Your task to perform on an android device: Turn on the flashlight Image 0: 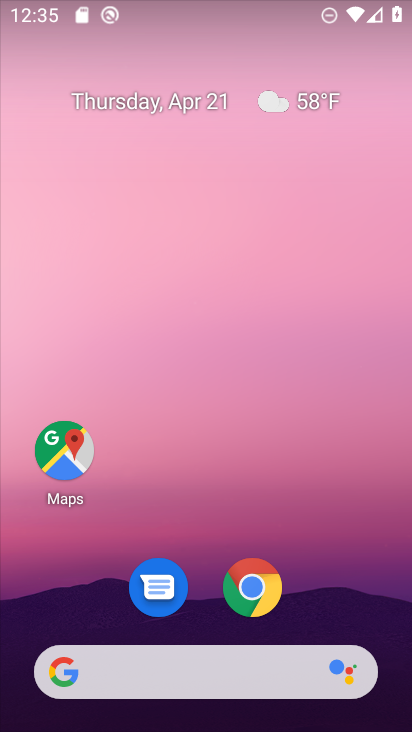
Step 0: click (171, 364)
Your task to perform on an android device: Turn on the flashlight Image 1: 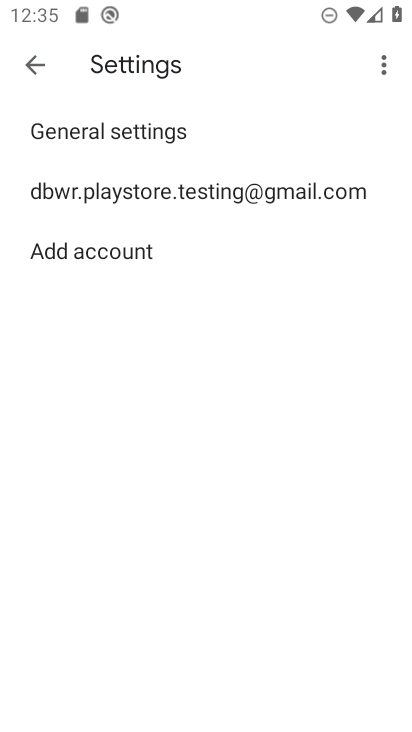
Step 1: press home button
Your task to perform on an android device: Turn on the flashlight Image 2: 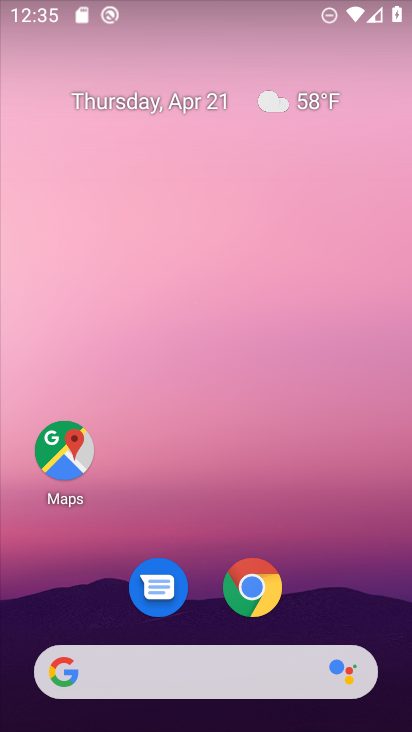
Step 2: drag from (197, 486) to (257, 34)
Your task to perform on an android device: Turn on the flashlight Image 3: 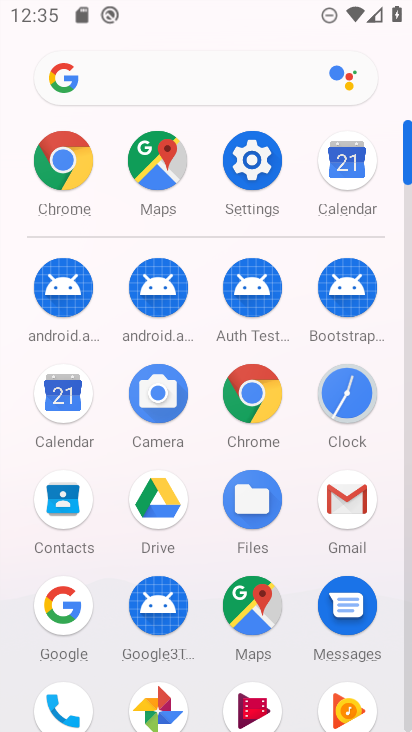
Step 3: click (245, 189)
Your task to perform on an android device: Turn on the flashlight Image 4: 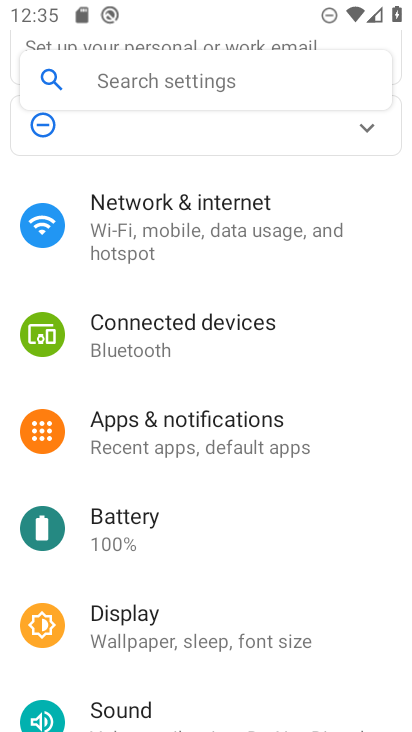
Step 4: click (152, 72)
Your task to perform on an android device: Turn on the flashlight Image 5: 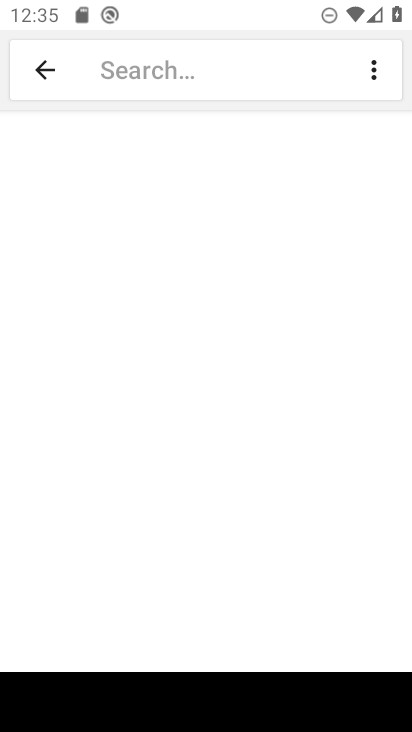
Step 5: type "flashlight"
Your task to perform on an android device: Turn on the flashlight Image 6: 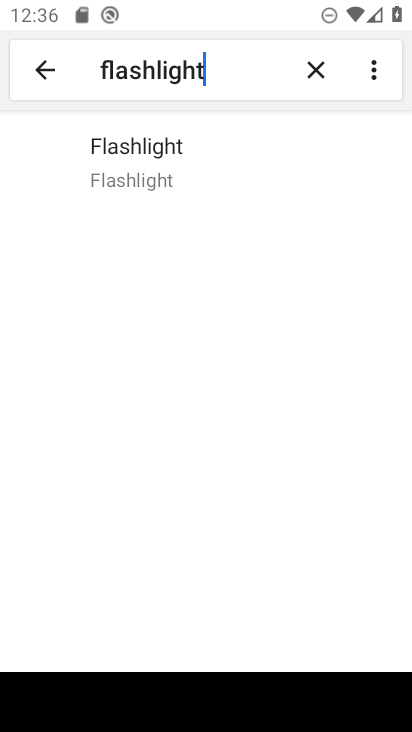
Step 6: click (172, 179)
Your task to perform on an android device: Turn on the flashlight Image 7: 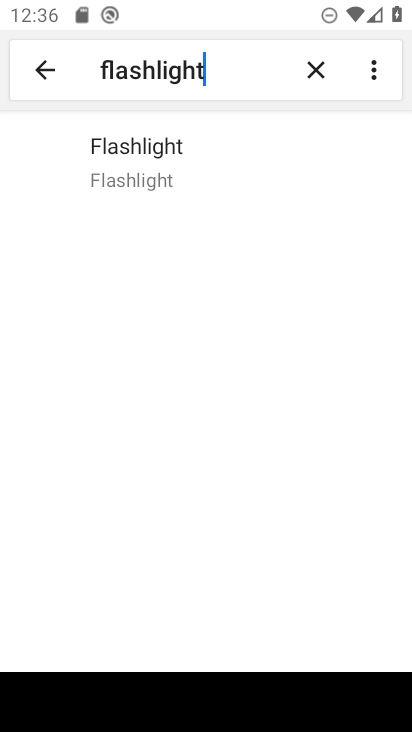
Step 7: click (172, 179)
Your task to perform on an android device: Turn on the flashlight Image 8: 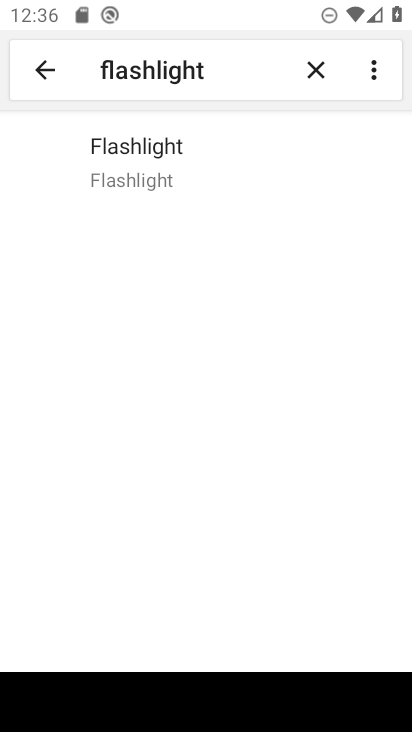
Step 8: task complete